Your task to perform on an android device: Open display settings Image 0: 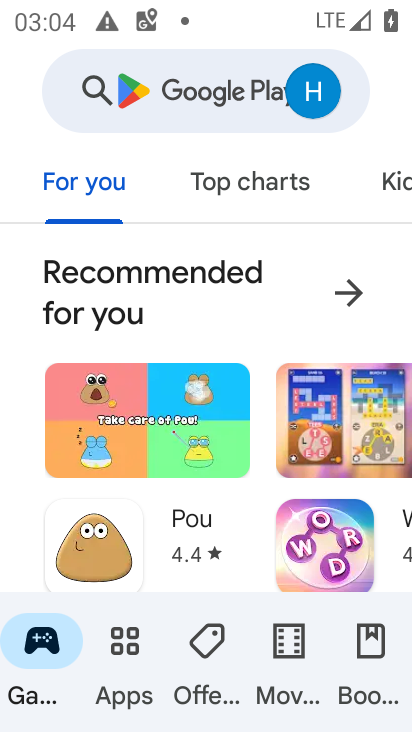
Step 0: press home button
Your task to perform on an android device: Open display settings Image 1: 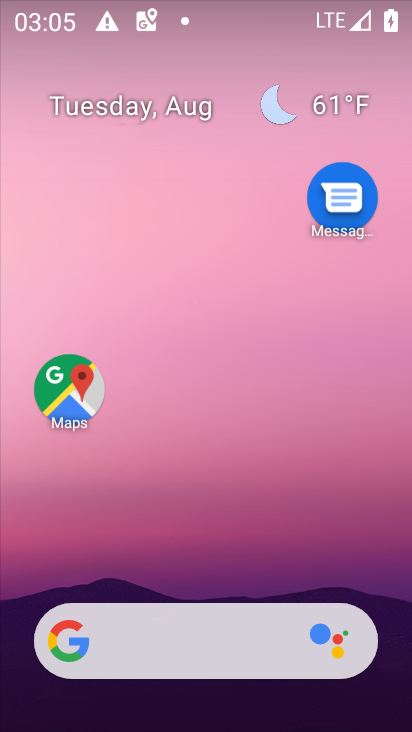
Step 1: drag from (212, 566) to (212, 12)
Your task to perform on an android device: Open display settings Image 2: 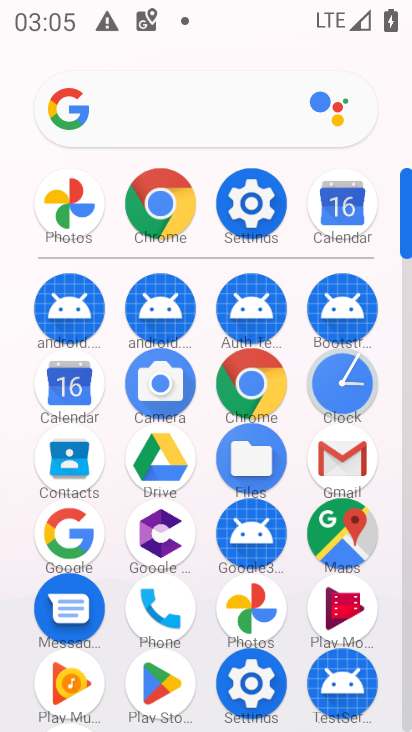
Step 2: click (244, 182)
Your task to perform on an android device: Open display settings Image 3: 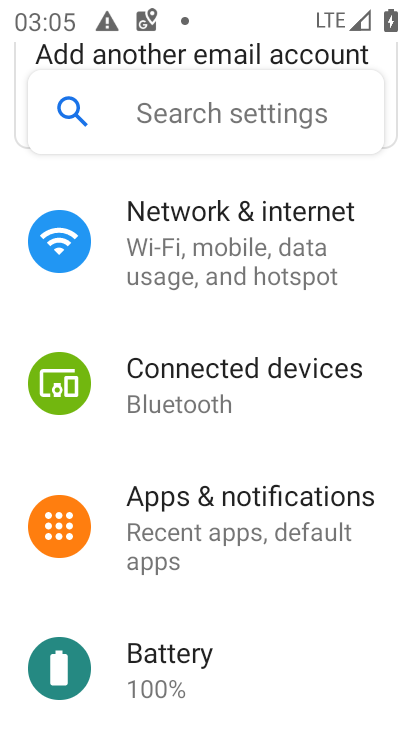
Step 3: drag from (168, 673) to (211, 267)
Your task to perform on an android device: Open display settings Image 4: 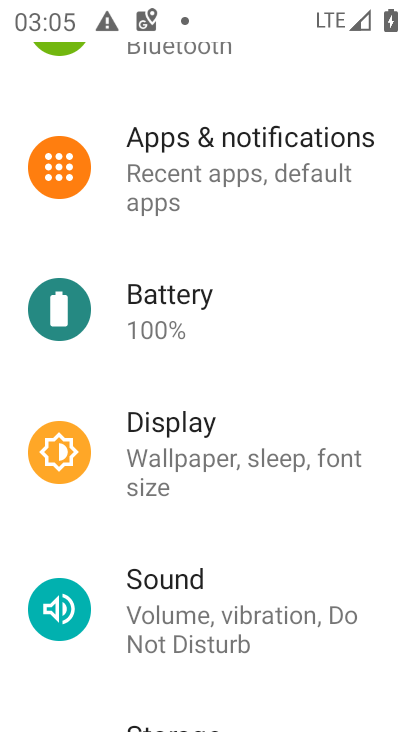
Step 4: click (231, 472)
Your task to perform on an android device: Open display settings Image 5: 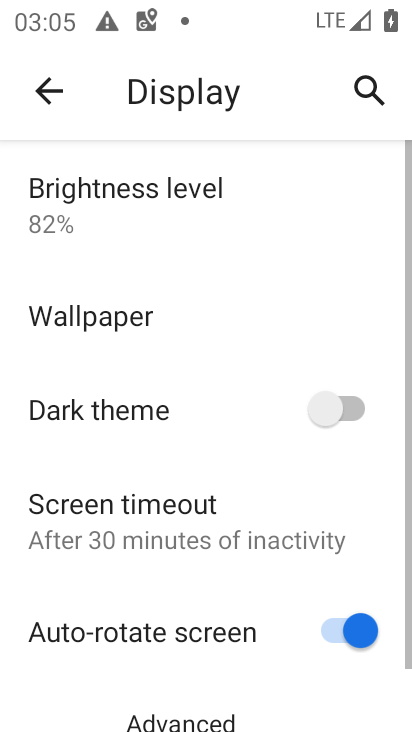
Step 5: task complete